Your task to perform on an android device: turn on bluetooth scan Image 0: 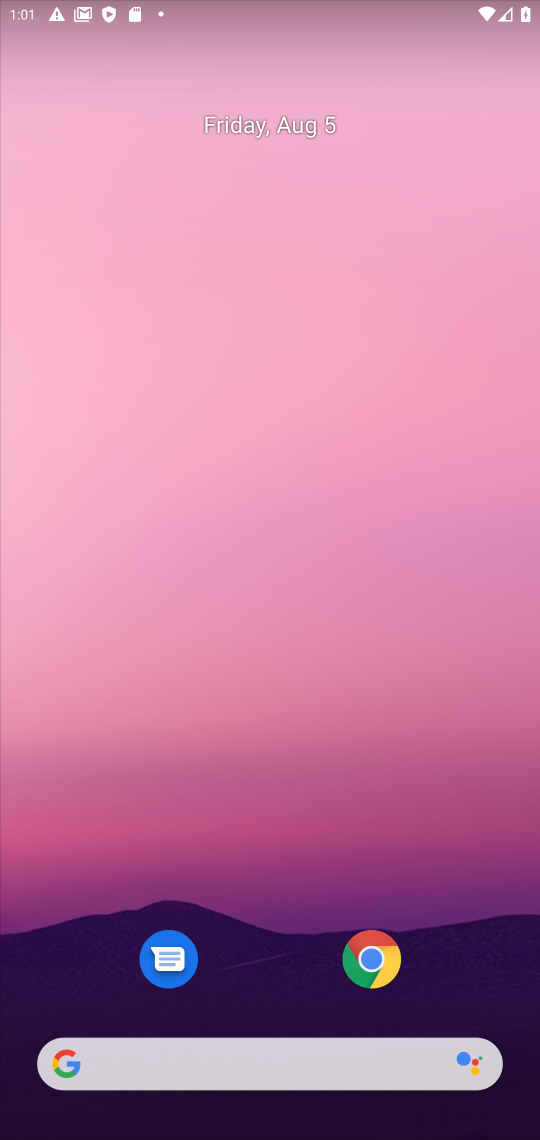
Step 0: drag from (167, 773) to (275, 15)
Your task to perform on an android device: turn on bluetooth scan Image 1: 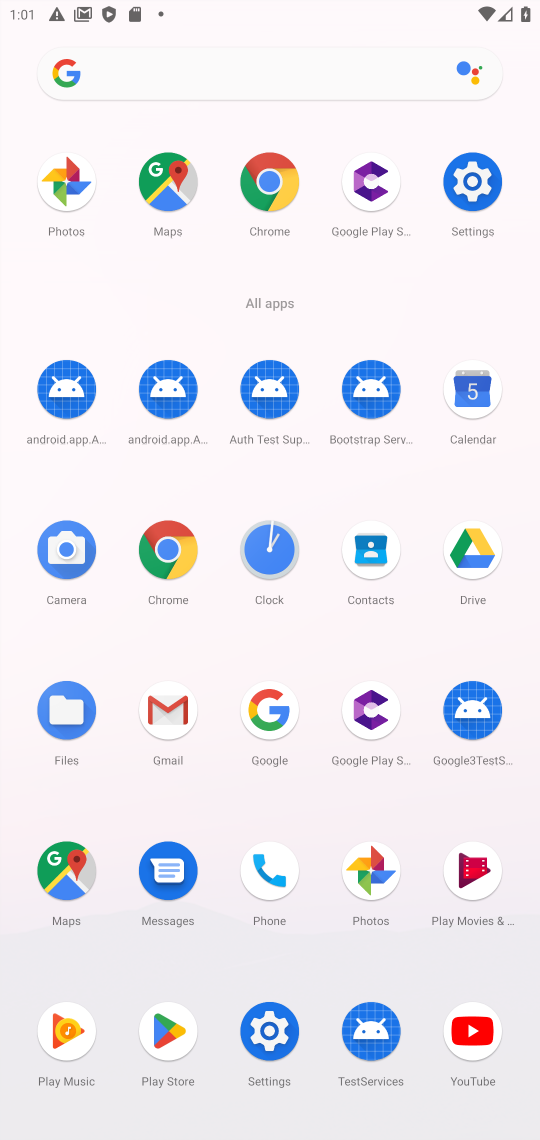
Step 1: click (478, 155)
Your task to perform on an android device: turn on bluetooth scan Image 2: 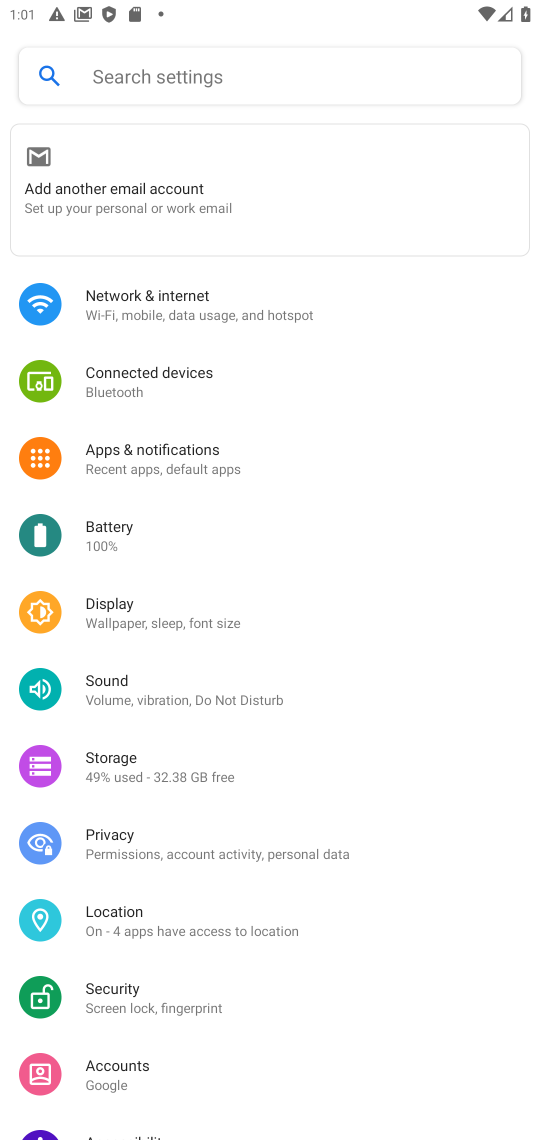
Step 2: click (165, 911)
Your task to perform on an android device: turn on bluetooth scan Image 3: 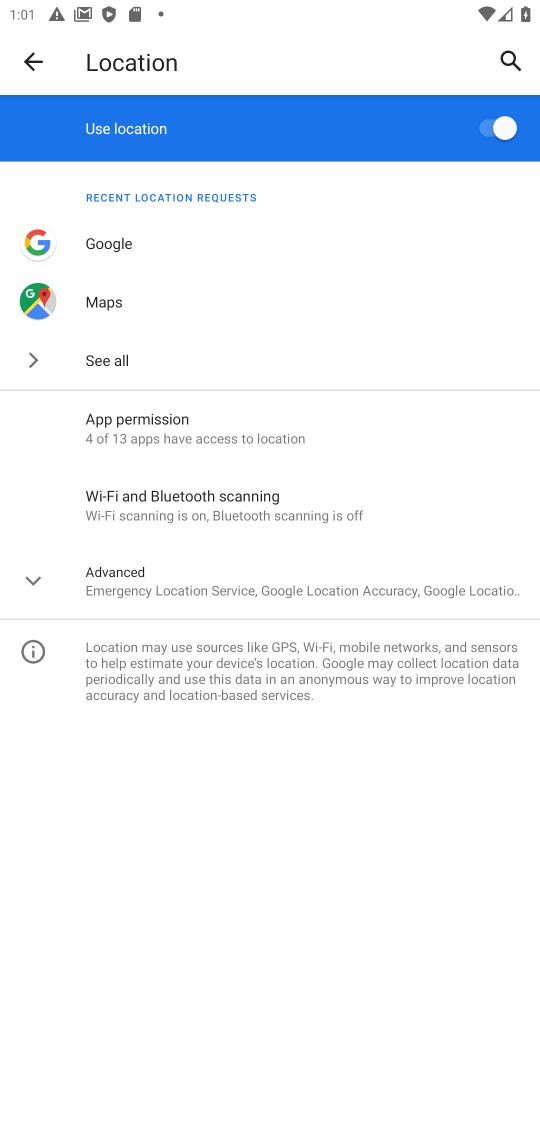
Step 3: click (208, 516)
Your task to perform on an android device: turn on bluetooth scan Image 4: 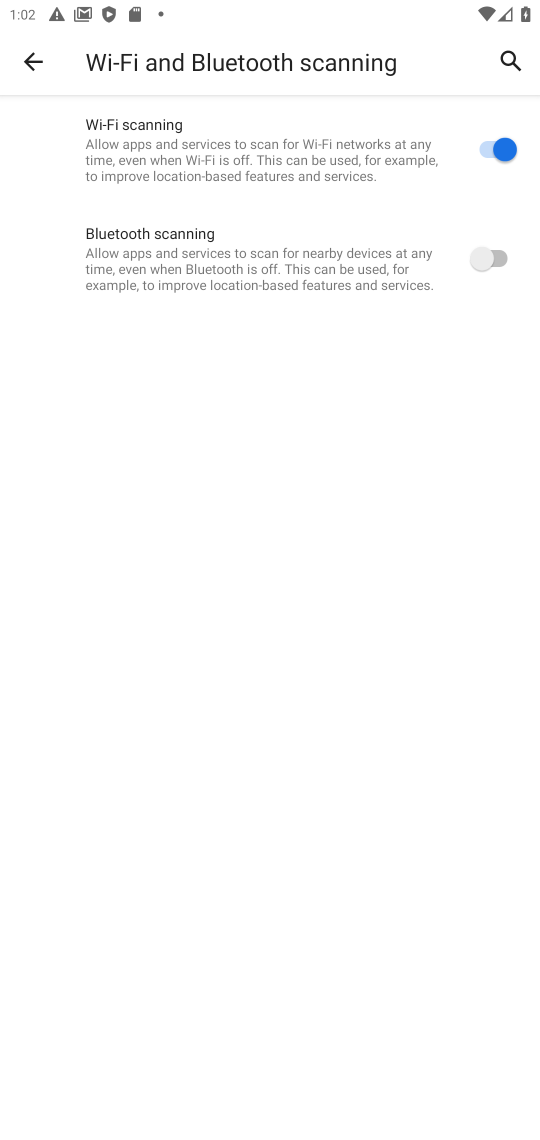
Step 4: click (472, 251)
Your task to perform on an android device: turn on bluetooth scan Image 5: 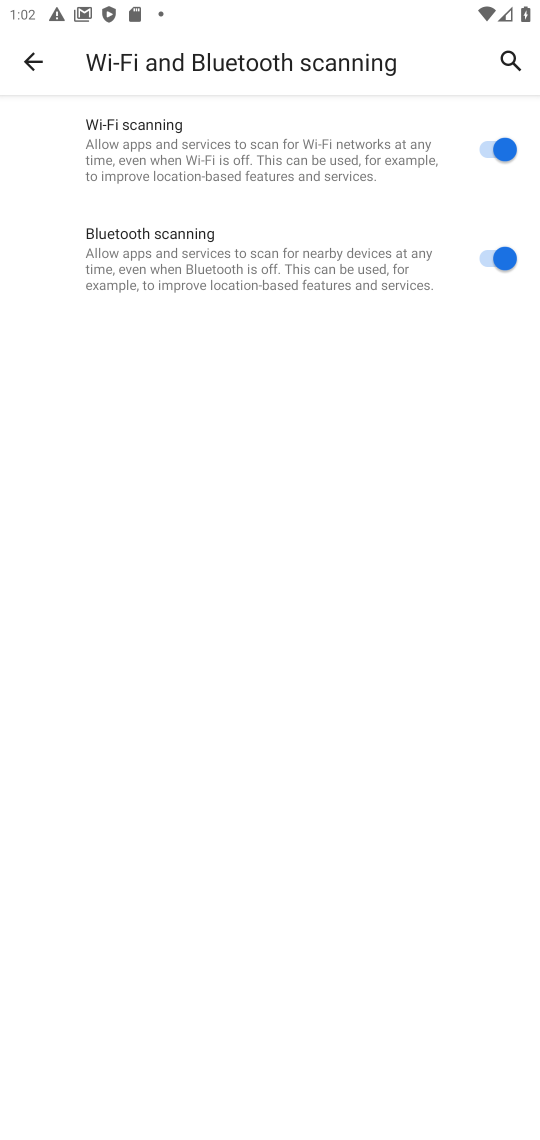
Step 5: task complete